Your task to perform on an android device: change alarm snooze length Image 0: 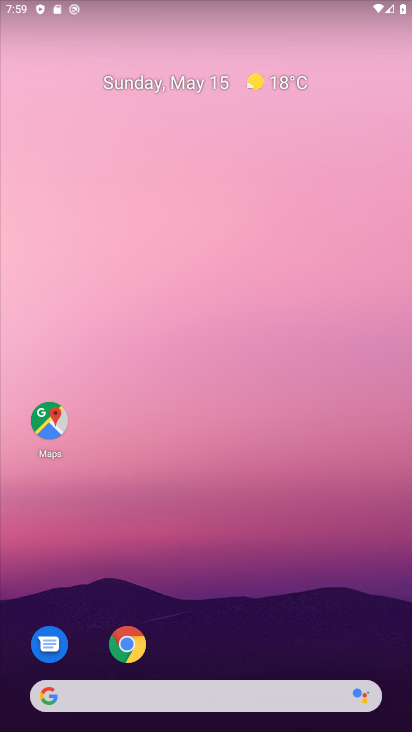
Step 0: drag from (217, 683) to (173, 129)
Your task to perform on an android device: change alarm snooze length Image 1: 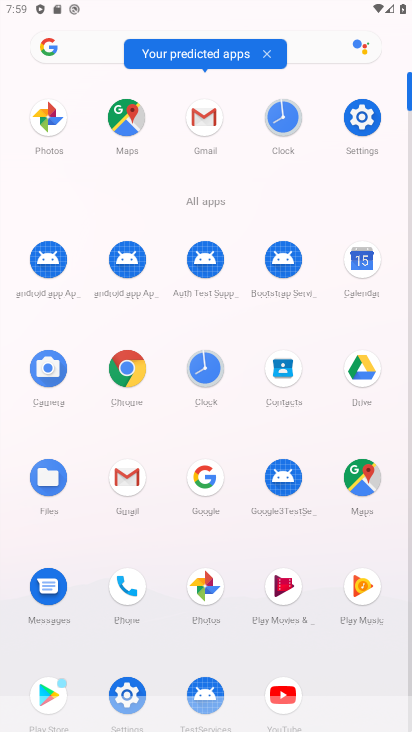
Step 1: click (204, 367)
Your task to perform on an android device: change alarm snooze length Image 2: 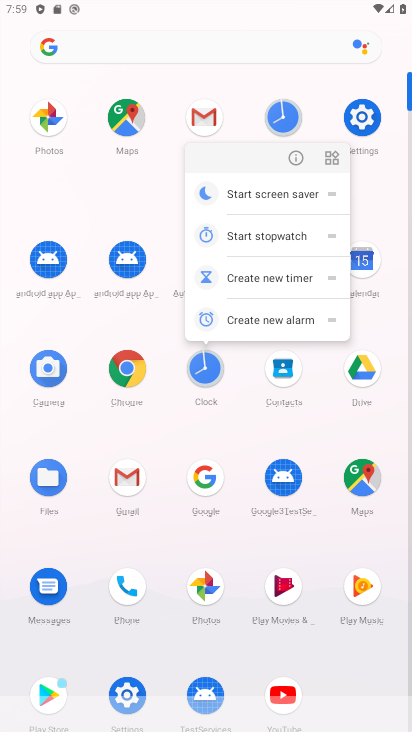
Step 2: click (203, 364)
Your task to perform on an android device: change alarm snooze length Image 3: 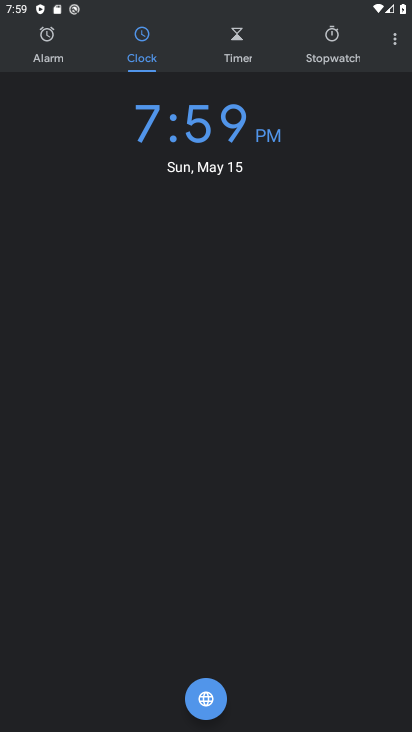
Step 3: click (399, 42)
Your task to perform on an android device: change alarm snooze length Image 4: 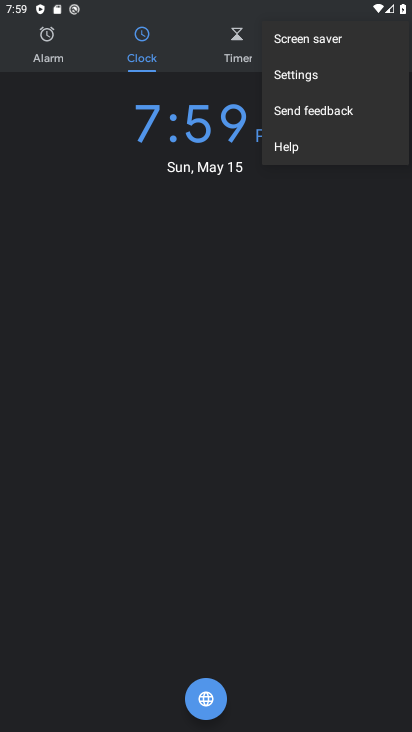
Step 4: click (324, 78)
Your task to perform on an android device: change alarm snooze length Image 5: 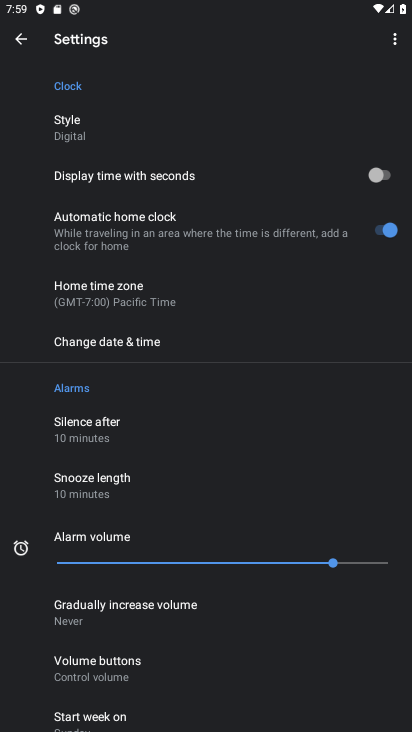
Step 5: click (129, 485)
Your task to perform on an android device: change alarm snooze length Image 6: 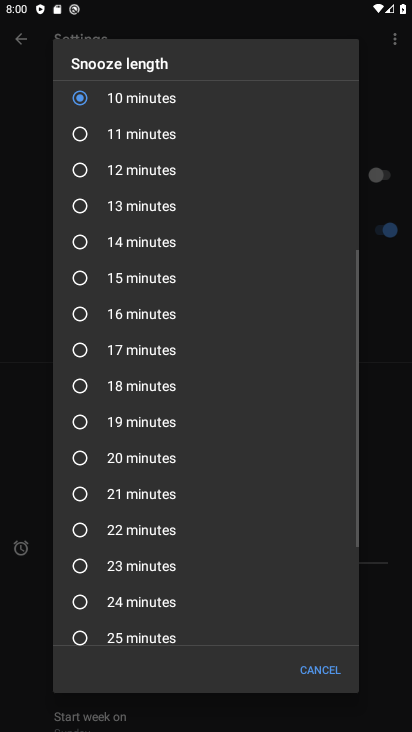
Step 6: click (133, 467)
Your task to perform on an android device: change alarm snooze length Image 7: 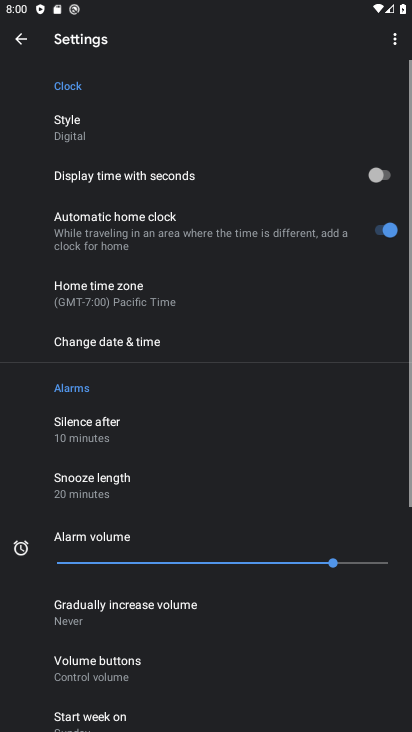
Step 7: task complete